Your task to perform on an android device: clear all cookies in the chrome app Image 0: 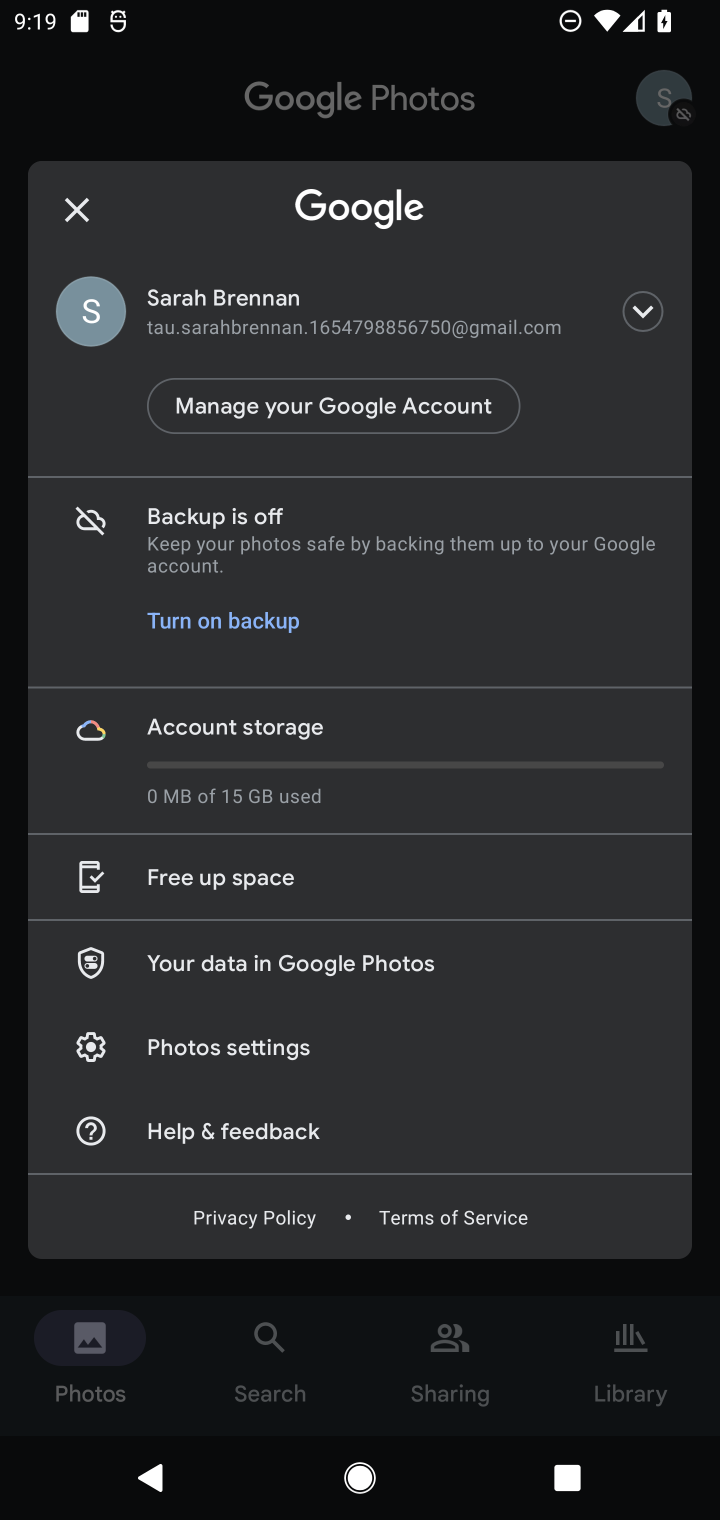
Step 0: task complete